Your task to perform on an android device: toggle airplane mode Image 0: 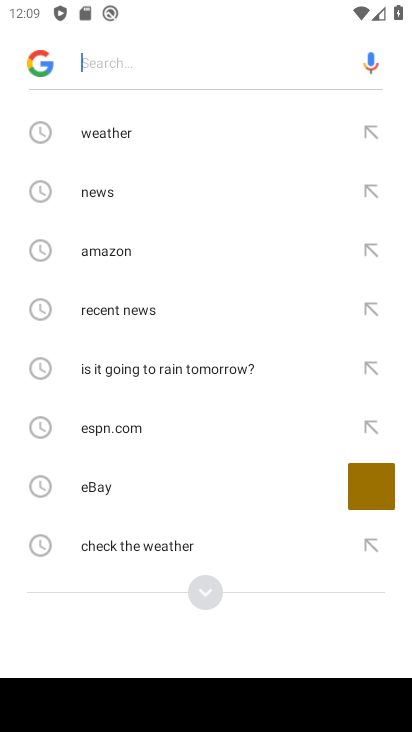
Step 0: press home button
Your task to perform on an android device: toggle airplane mode Image 1: 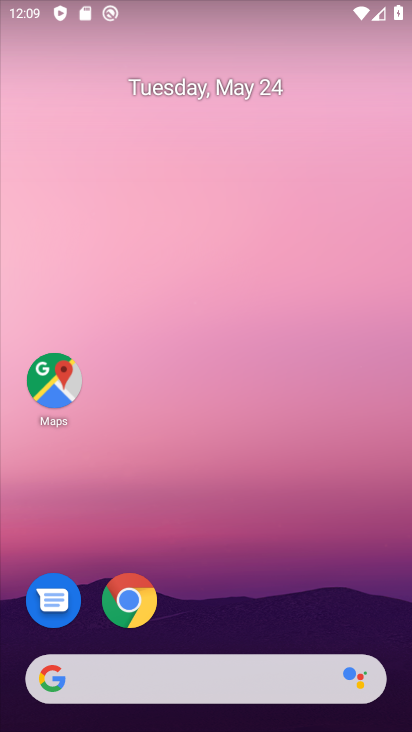
Step 1: drag from (238, 495) to (214, 9)
Your task to perform on an android device: toggle airplane mode Image 2: 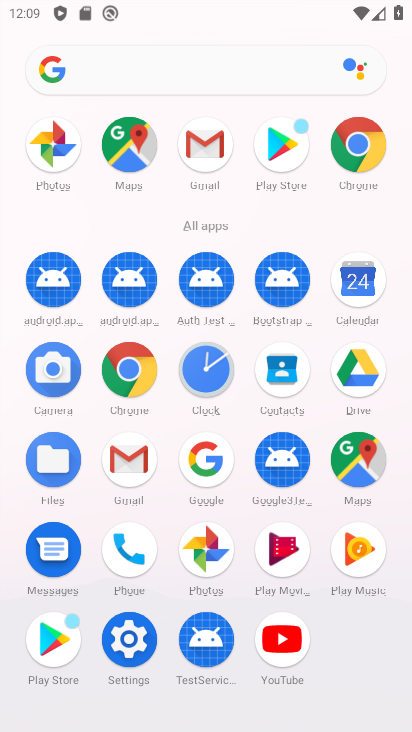
Step 2: click (115, 642)
Your task to perform on an android device: toggle airplane mode Image 3: 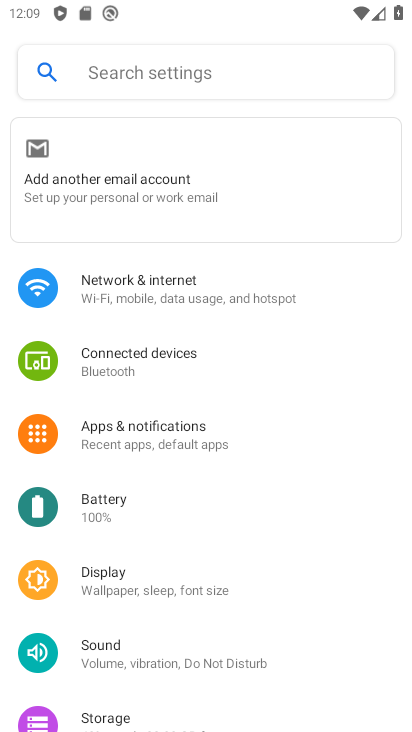
Step 3: click (220, 276)
Your task to perform on an android device: toggle airplane mode Image 4: 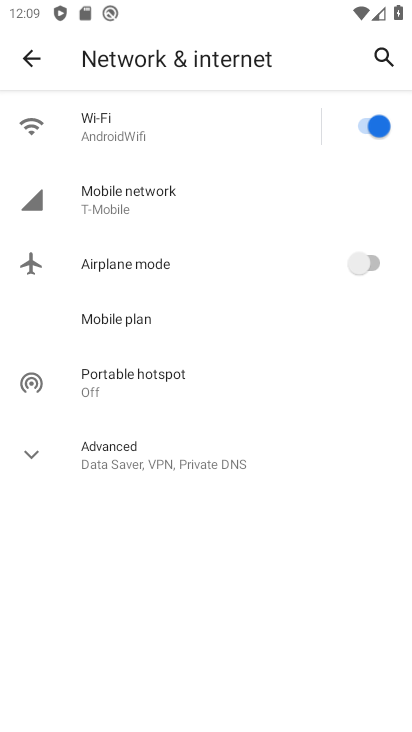
Step 4: click (344, 256)
Your task to perform on an android device: toggle airplane mode Image 5: 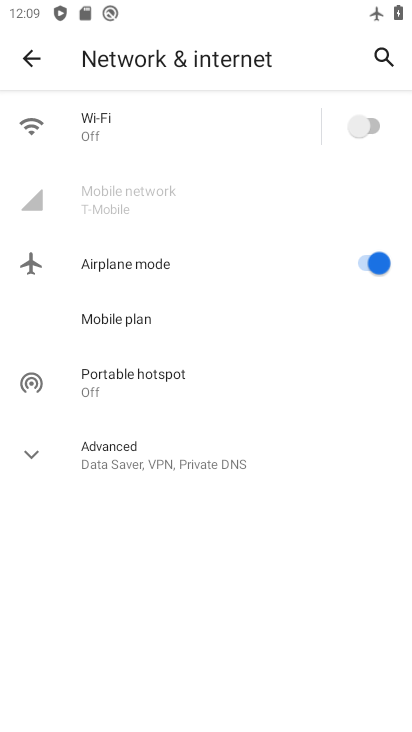
Step 5: task complete